Your task to perform on an android device: turn on location history Image 0: 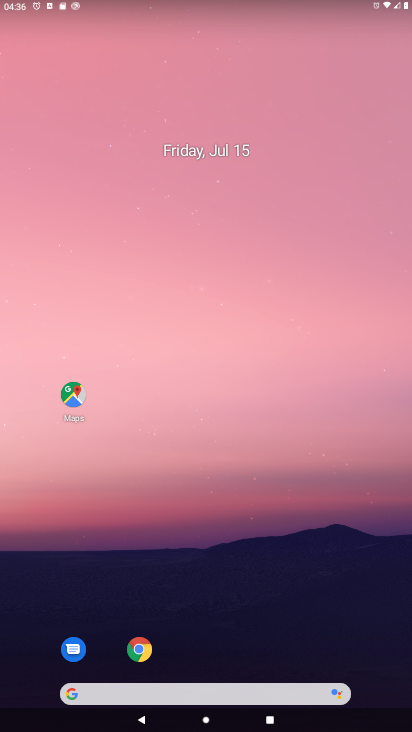
Step 0: click (73, 396)
Your task to perform on an android device: turn on location history Image 1: 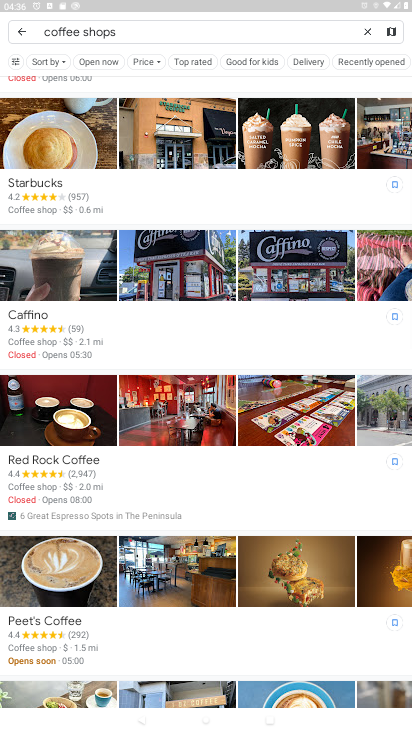
Step 1: click (364, 29)
Your task to perform on an android device: turn on location history Image 2: 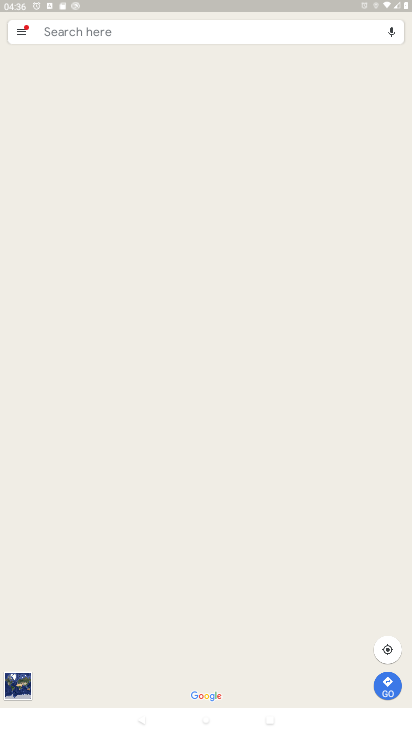
Step 2: click (21, 28)
Your task to perform on an android device: turn on location history Image 3: 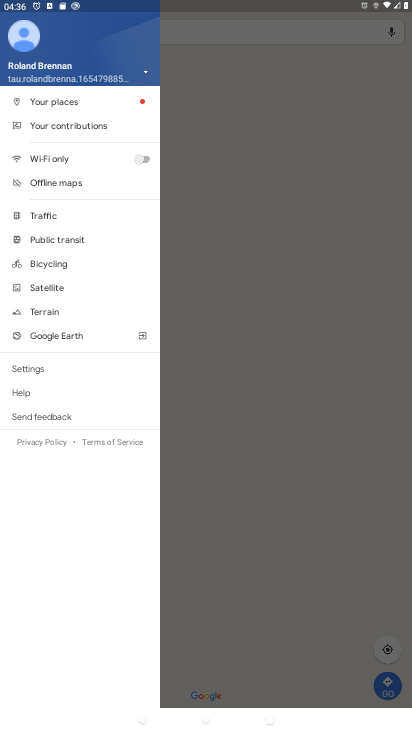
Step 3: click (30, 368)
Your task to perform on an android device: turn on location history Image 4: 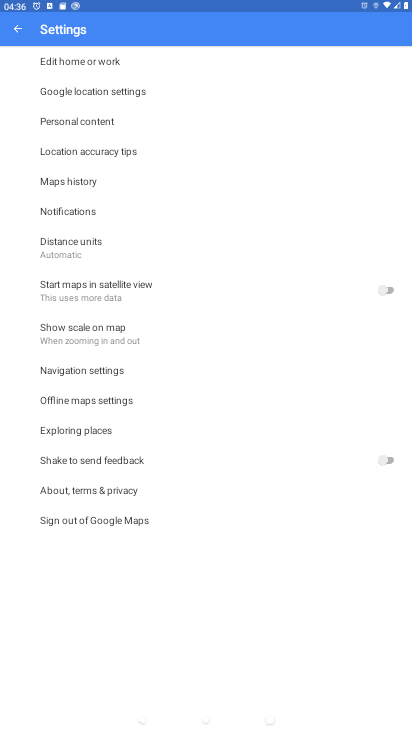
Step 4: click (69, 125)
Your task to perform on an android device: turn on location history Image 5: 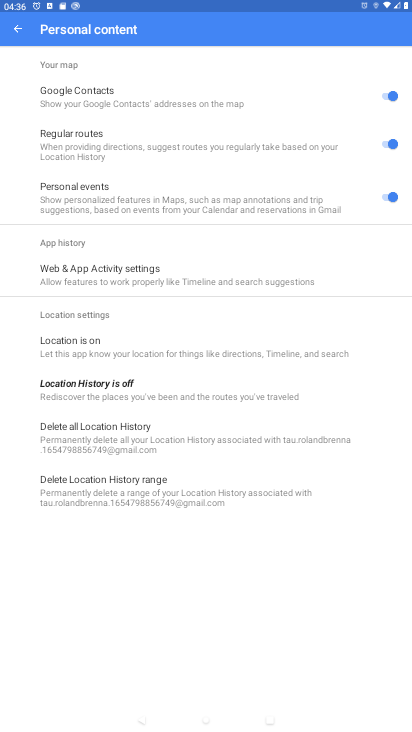
Step 5: click (102, 387)
Your task to perform on an android device: turn on location history Image 6: 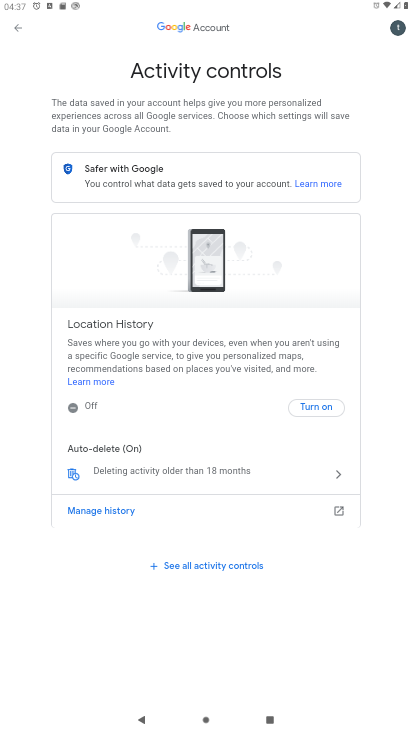
Step 6: click (315, 408)
Your task to perform on an android device: turn on location history Image 7: 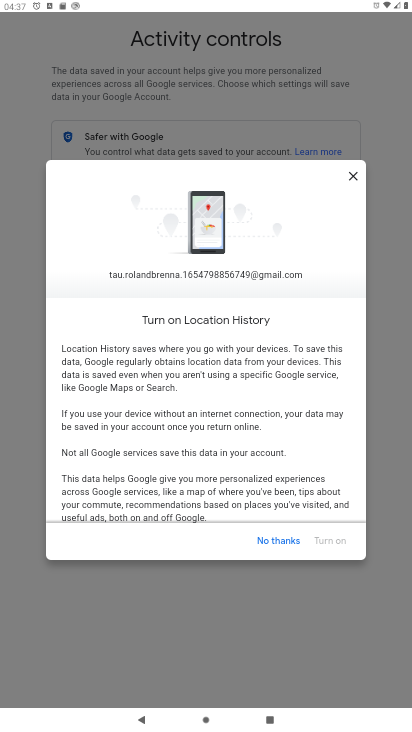
Step 7: drag from (293, 495) to (277, 207)
Your task to perform on an android device: turn on location history Image 8: 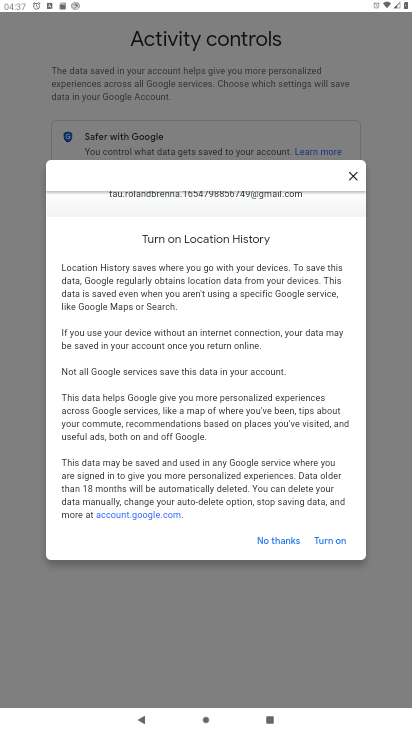
Step 8: click (328, 543)
Your task to perform on an android device: turn on location history Image 9: 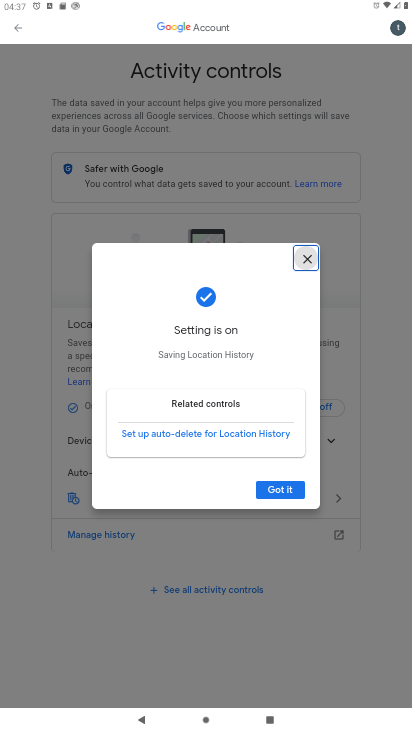
Step 9: click (283, 488)
Your task to perform on an android device: turn on location history Image 10: 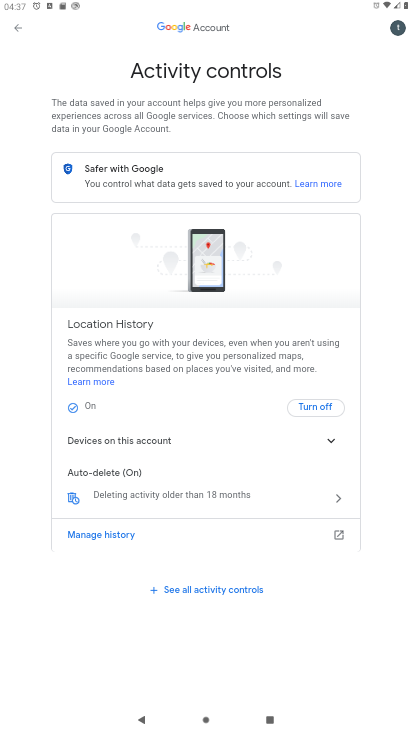
Step 10: task complete